Your task to perform on an android device: toggle location history Image 0: 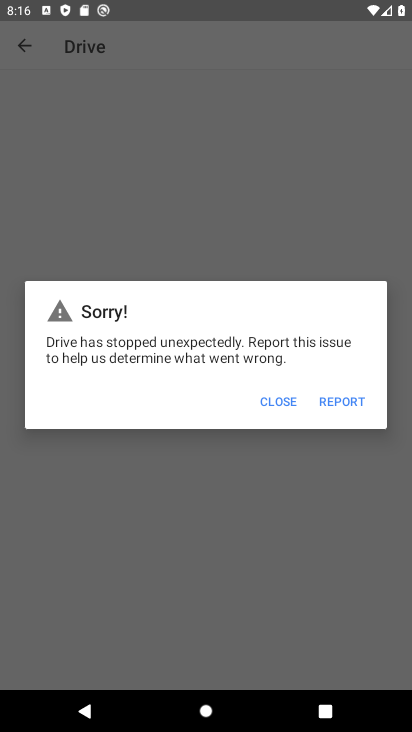
Step 0: press home button
Your task to perform on an android device: toggle location history Image 1: 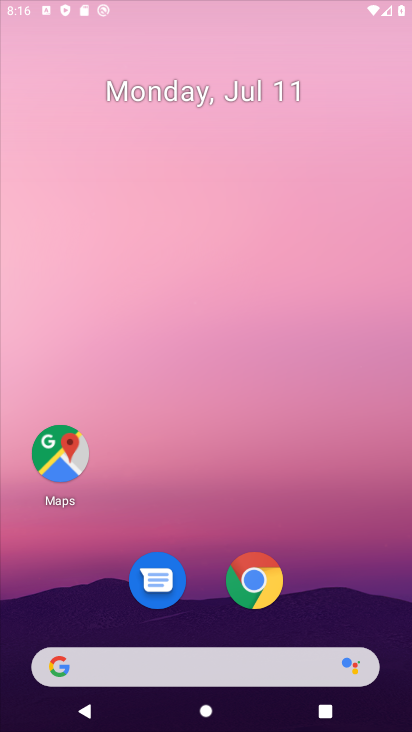
Step 1: drag from (397, 587) to (185, 0)
Your task to perform on an android device: toggle location history Image 2: 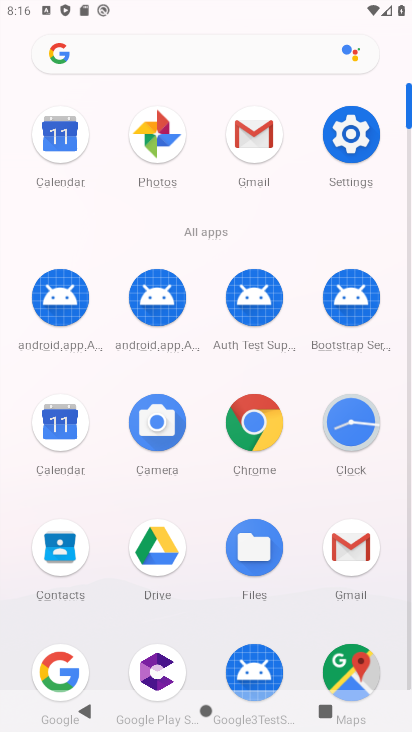
Step 2: click (378, 148)
Your task to perform on an android device: toggle location history Image 3: 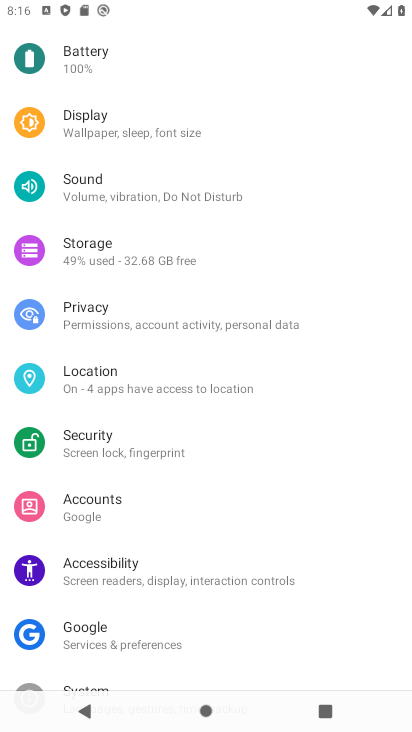
Step 3: click (114, 398)
Your task to perform on an android device: toggle location history Image 4: 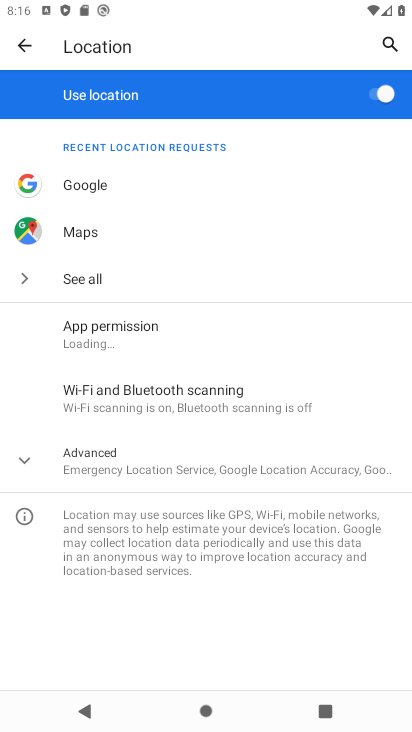
Step 4: click (83, 448)
Your task to perform on an android device: toggle location history Image 5: 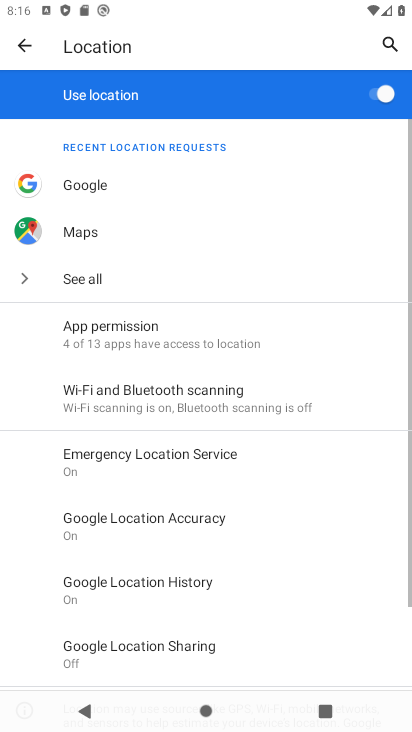
Step 5: click (148, 592)
Your task to perform on an android device: toggle location history Image 6: 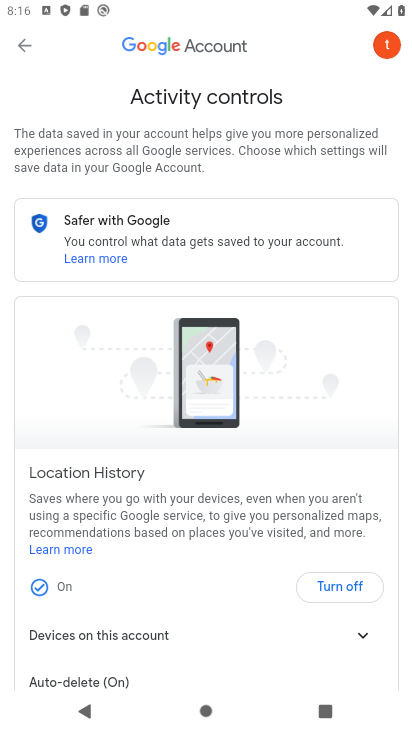
Step 6: click (336, 585)
Your task to perform on an android device: toggle location history Image 7: 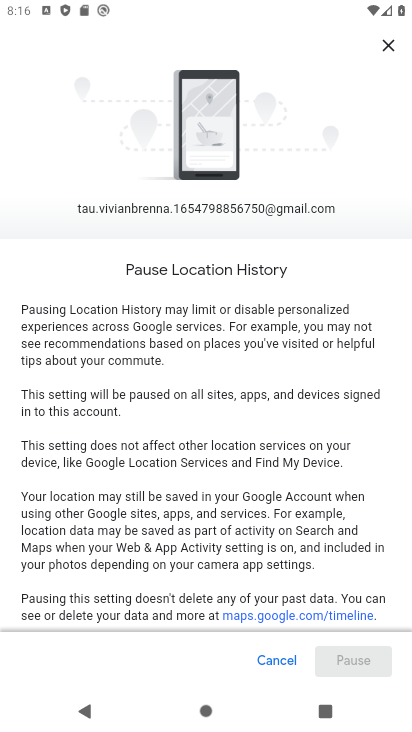
Step 7: task complete